Your task to perform on an android device: Open Android settings Image 0: 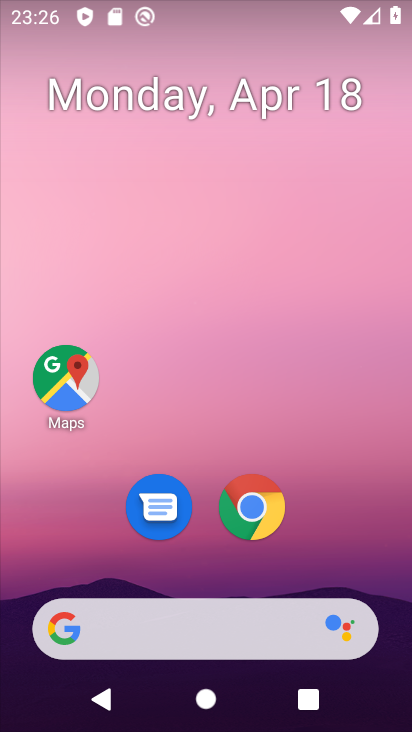
Step 0: drag from (349, 517) to (391, 90)
Your task to perform on an android device: Open Android settings Image 1: 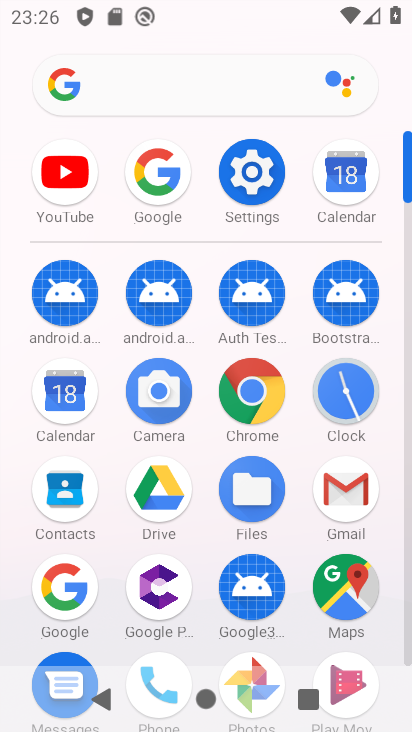
Step 1: click (258, 176)
Your task to perform on an android device: Open Android settings Image 2: 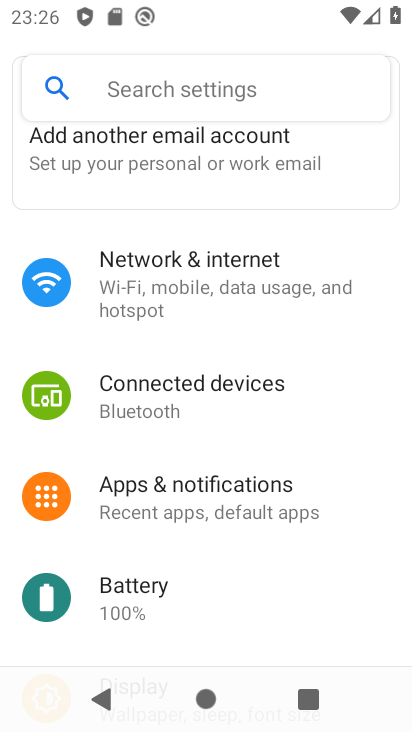
Step 2: task complete